Your task to perform on an android device: turn off javascript in the chrome app Image 0: 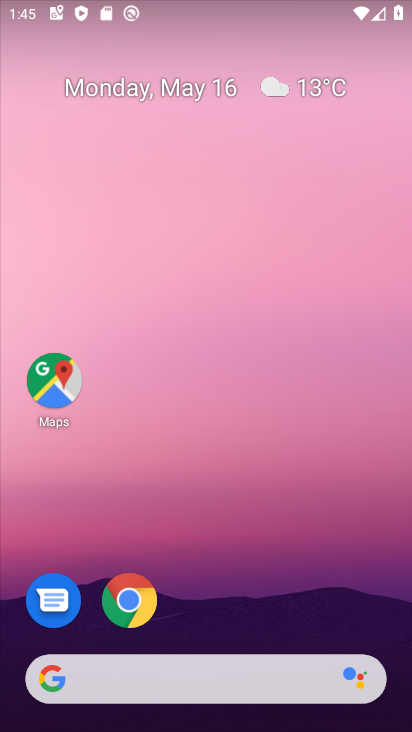
Step 0: click (131, 590)
Your task to perform on an android device: turn off javascript in the chrome app Image 1: 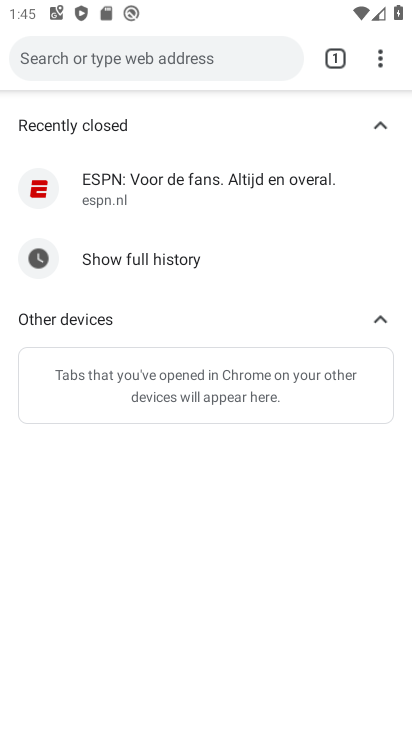
Step 1: click (386, 58)
Your task to perform on an android device: turn off javascript in the chrome app Image 2: 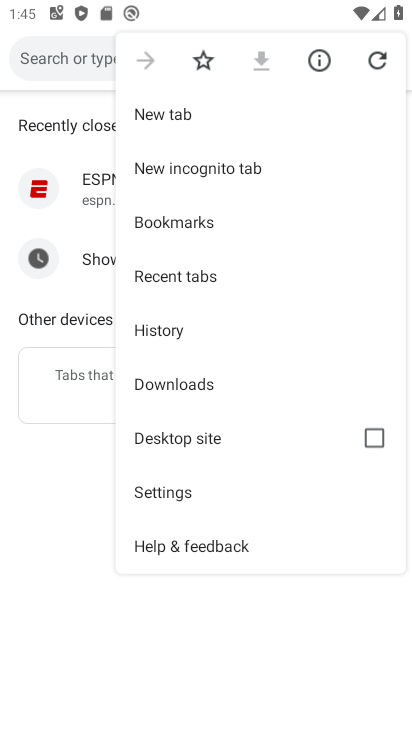
Step 2: click (200, 497)
Your task to perform on an android device: turn off javascript in the chrome app Image 3: 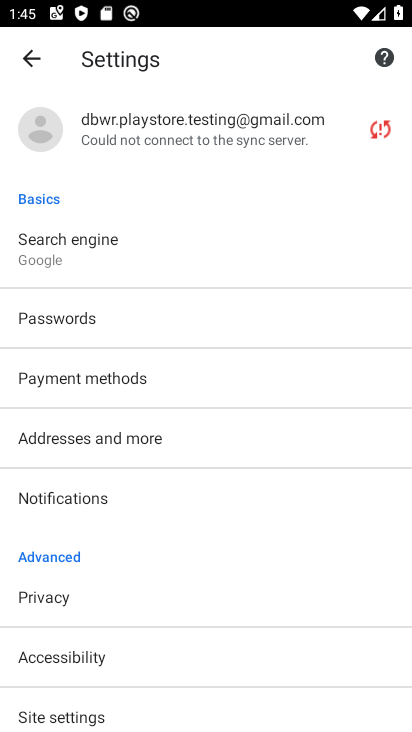
Step 3: drag from (182, 668) to (187, 472)
Your task to perform on an android device: turn off javascript in the chrome app Image 4: 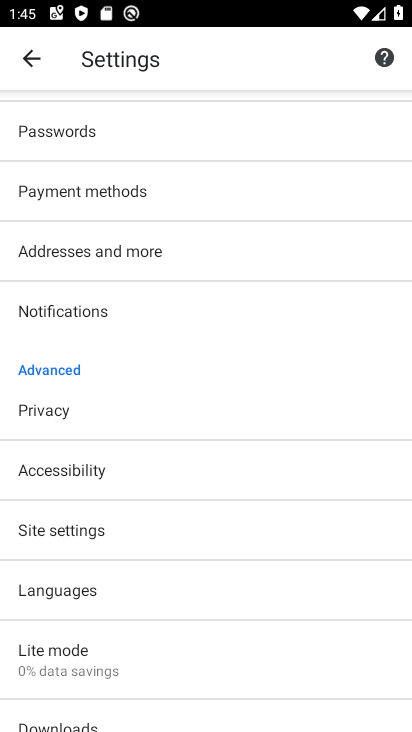
Step 4: click (100, 535)
Your task to perform on an android device: turn off javascript in the chrome app Image 5: 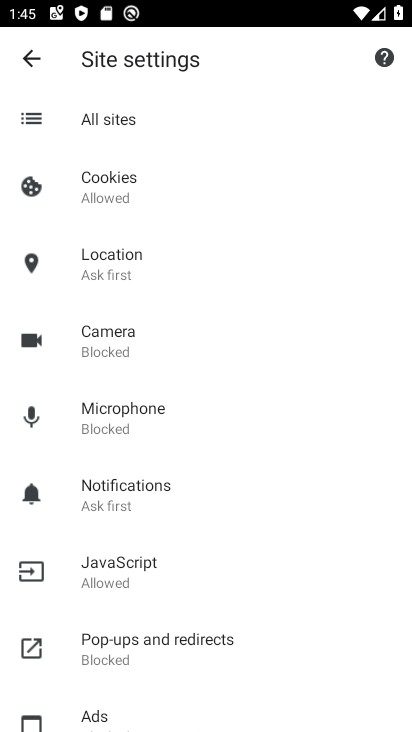
Step 5: click (181, 569)
Your task to perform on an android device: turn off javascript in the chrome app Image 6: 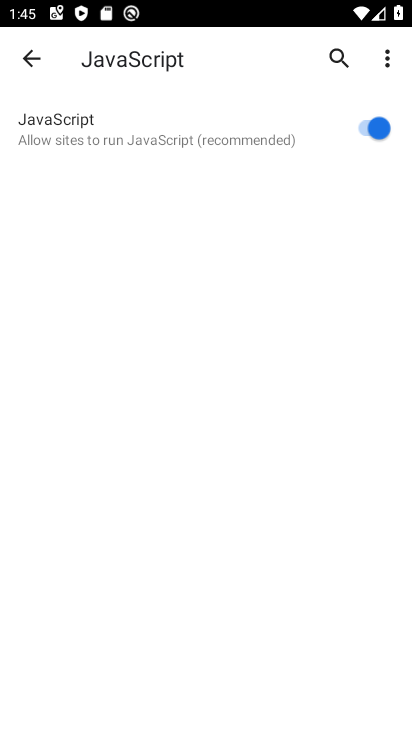
Step 6: click (394, 125)
Your task to perform on an android device: turn off javascript in the chrome app Image 7: 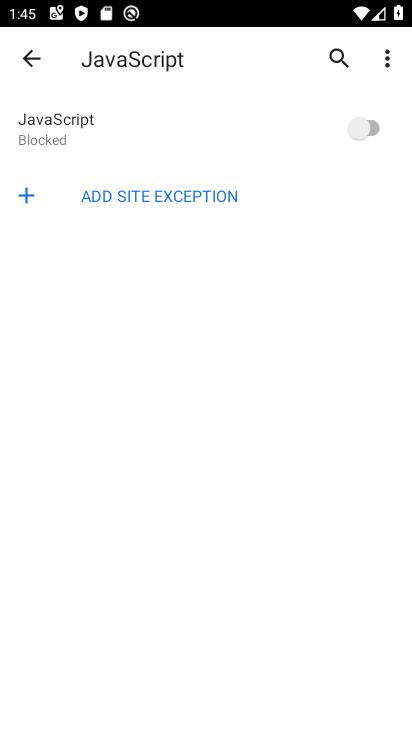
Step 7: task complete